Your task to perform on an android device: Check the weather Image 0: 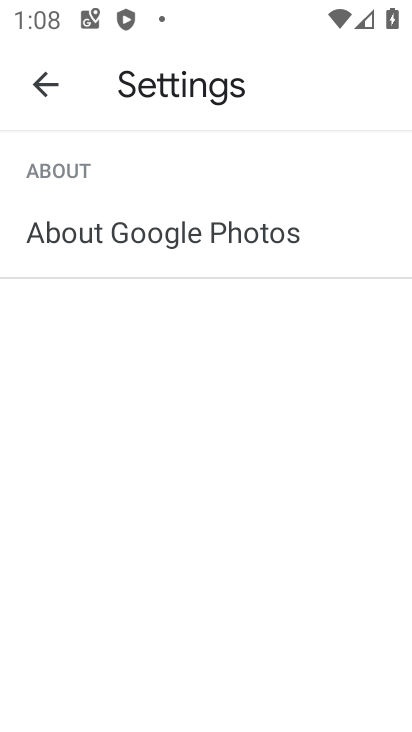
Step 0: press home button
Your task to perform on an android device: Check the weather Image 1: 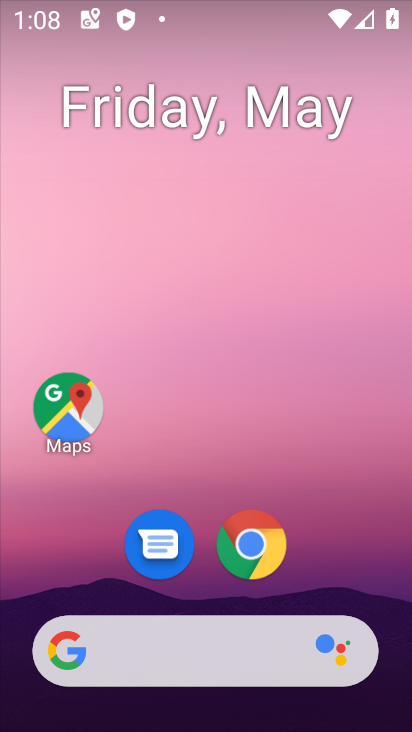
Step 1: click (176, 663)
Your task to perform on an android device: Check the weather Image 2: 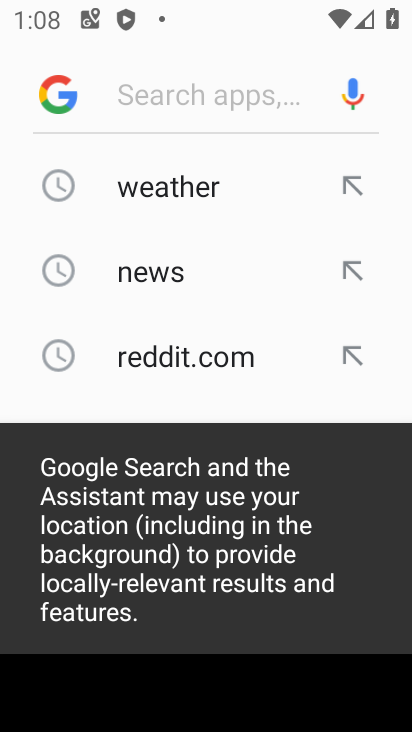
Step 2: click (141, 207)
Your task to perform on an android device: Check the weather Image 3: 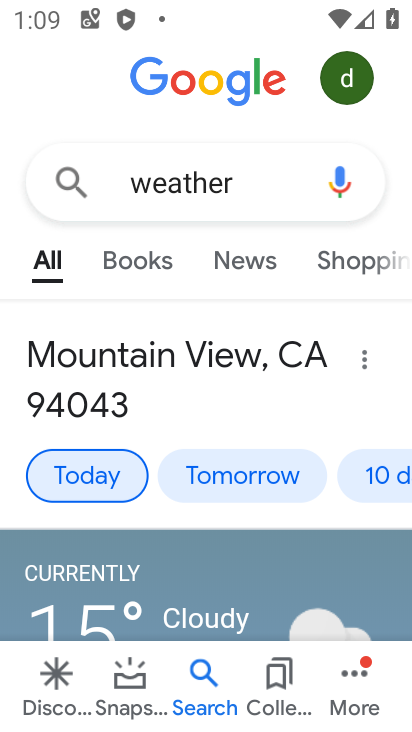
Step 3: task complete